Your task to perform on an android device: Go to Google maps Image 0: 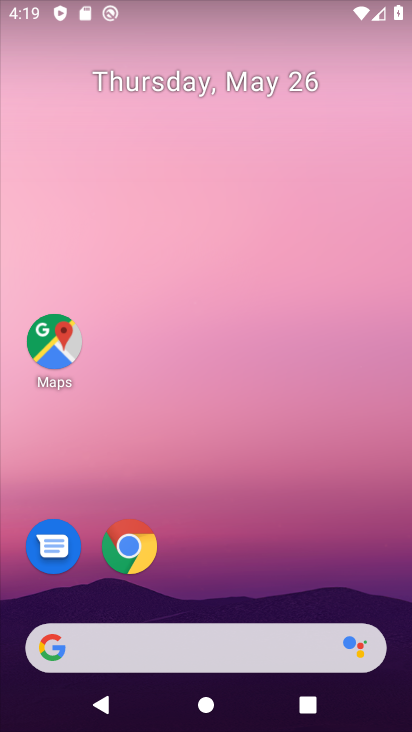
Step 0: click (66, 367)
Your task to perform on an android device: Go to Google maps Image 1: 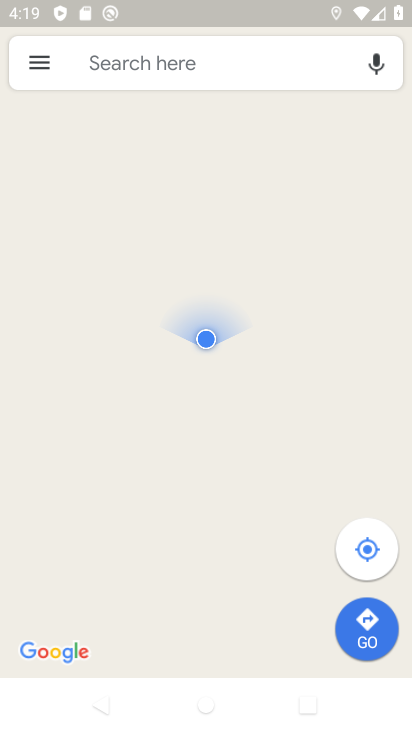
Step 1: task complete